Your task to perform on an android device: visit the assistant section in the google photos Image 0: 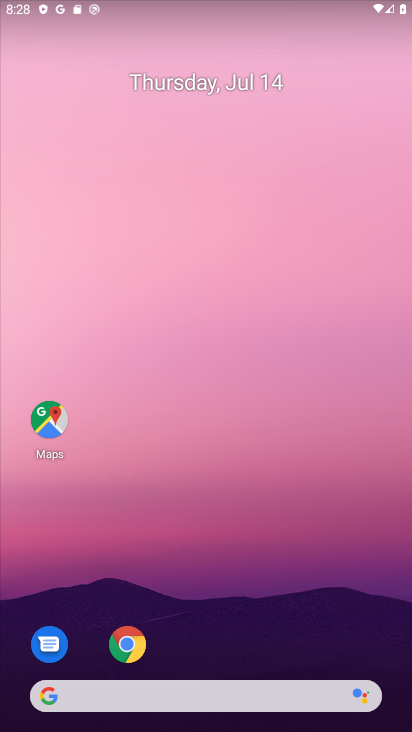
Step 0: drag from (193, 676) to (239, 49)
Your task to perform on an android device: visit the assistant section in the google photos Image 1: 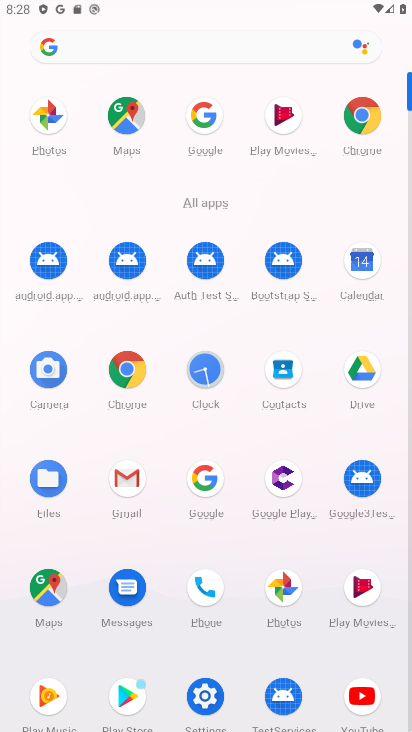
Step 1: click (283, 586)
Your task to perform on an android device: visit the assistant section in the google photos Image 2: 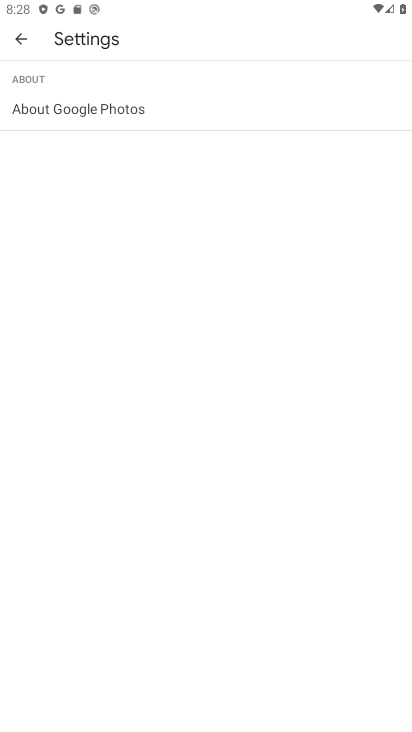
Step 2: press back button
Your task to perform on an android device: visit the assistant section in the google photos Image 3: 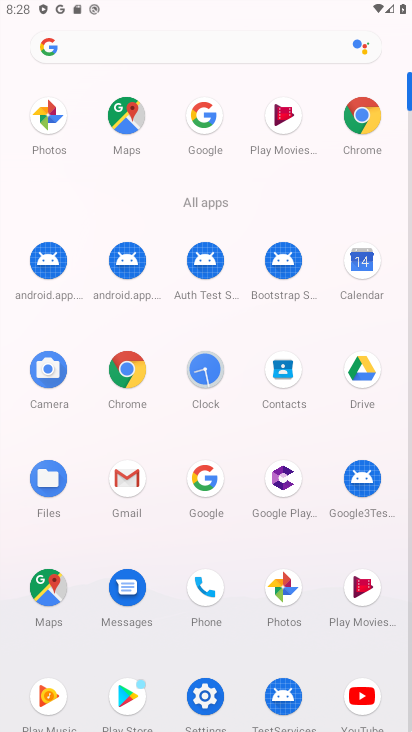
Step 3: click (279, 594)
Your task to perform on an android device: visit the assistant section in the google photos Image 4: 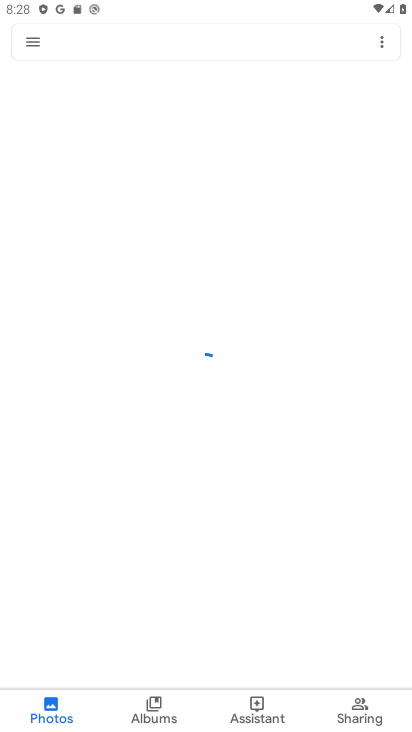
Step 4: click (258, 711)
Your task to perform on an android device: visit the assistant section in the google photos Image 5: 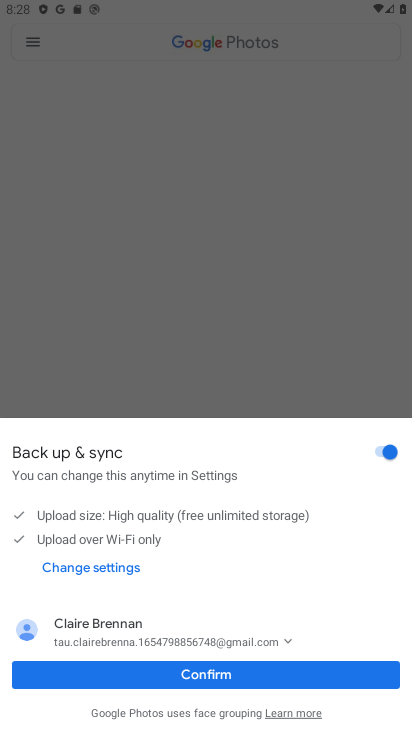
Step 5: click (236, 679)
Your task to perform on an android device: visit the assistant section in the google photos Image 6: 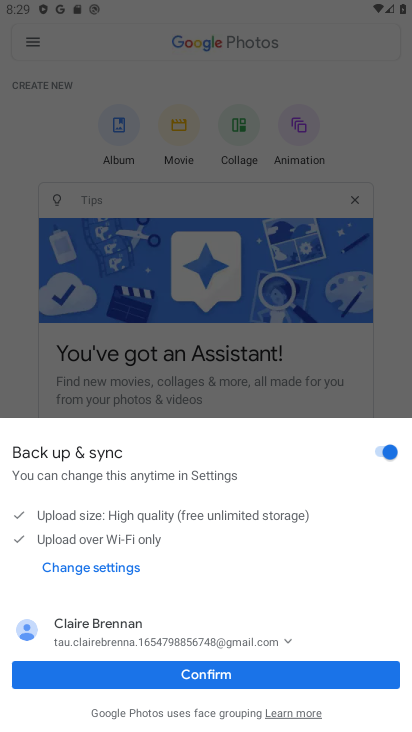
Step 6: click (235, 680)
Your task to perform on an android device: visit the assistant section in the google photos Image 7: 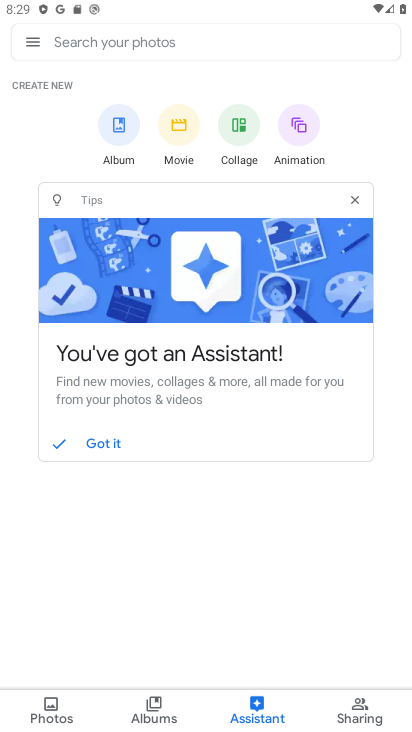
Step 7: task complete